Your task to perform on an android device: uninstall "Indeed Job Search" Image 0: 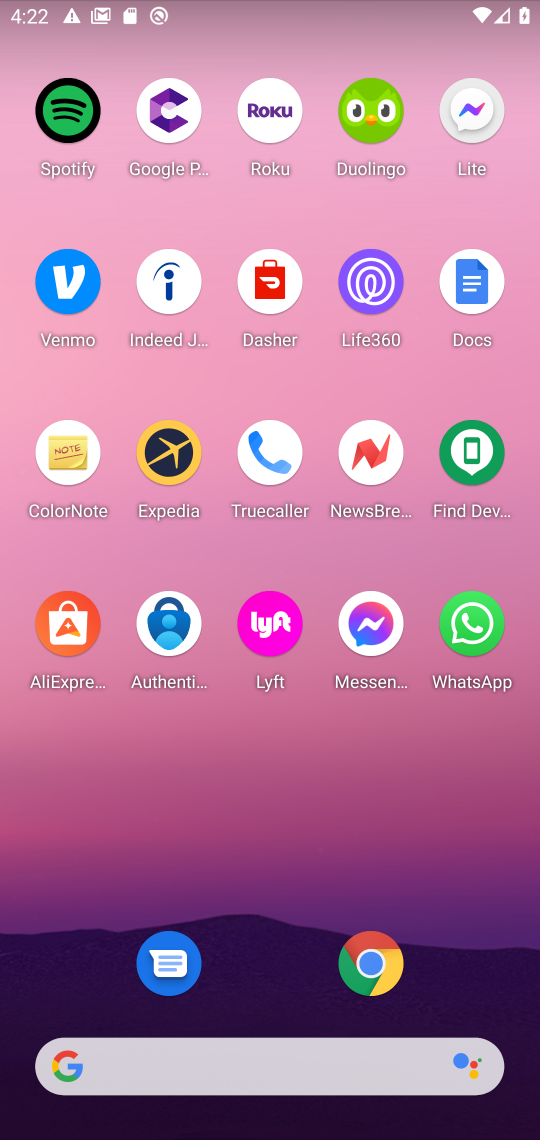
Step 0: press home button
Your task to perform on an android device: uninstall "Indeed Job Search" Image 1: 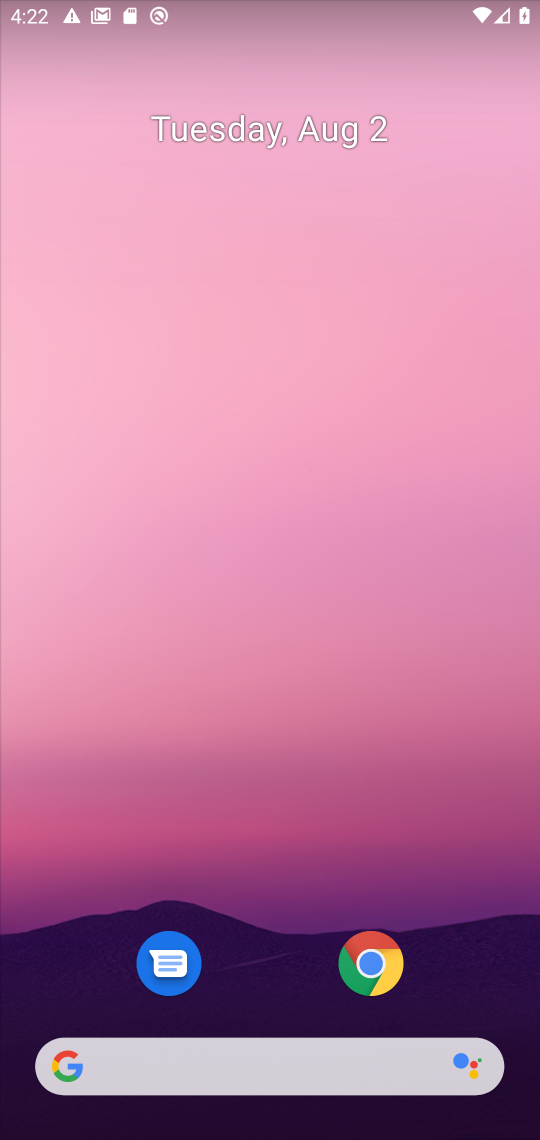
Step 1: drag from (243, 922) to (243, 331)
Your task to perform on an android device: uninstall "Indeed Job Search" Image 2: 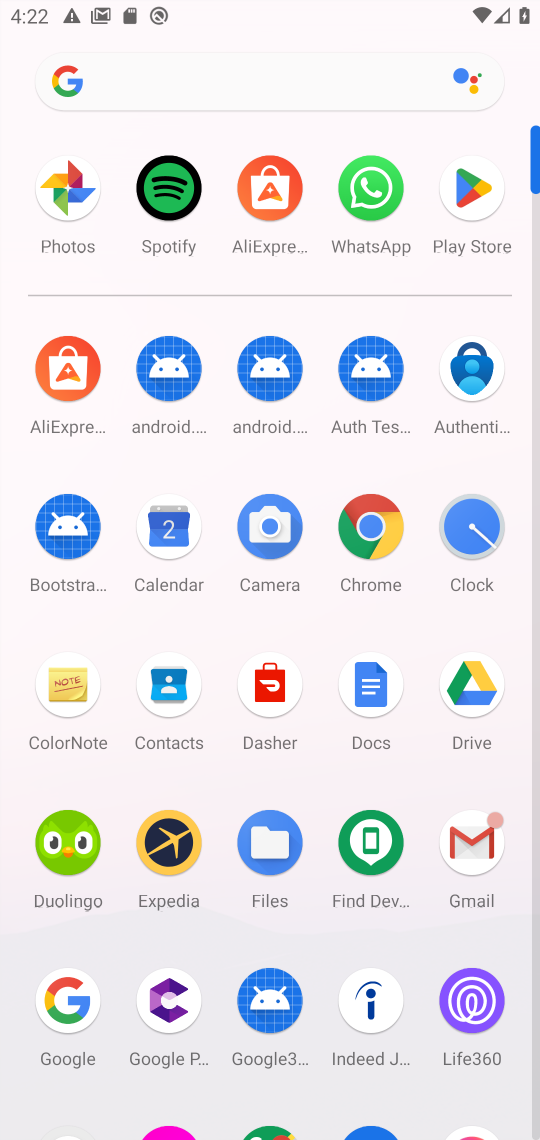
Step 2: click (378, 1001)
Your task to perform on an android device: uninstall "Indeed Job Search" Image 3: 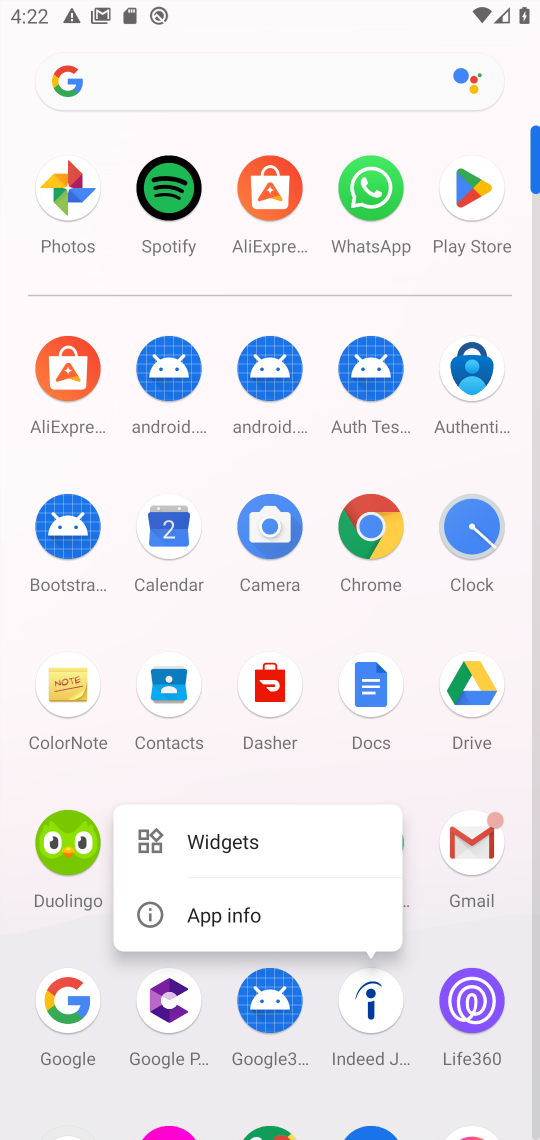
Step 3: click (383, 997)
Your task to perform on an android device: uninstall "Indeed Job Search" Image 4: 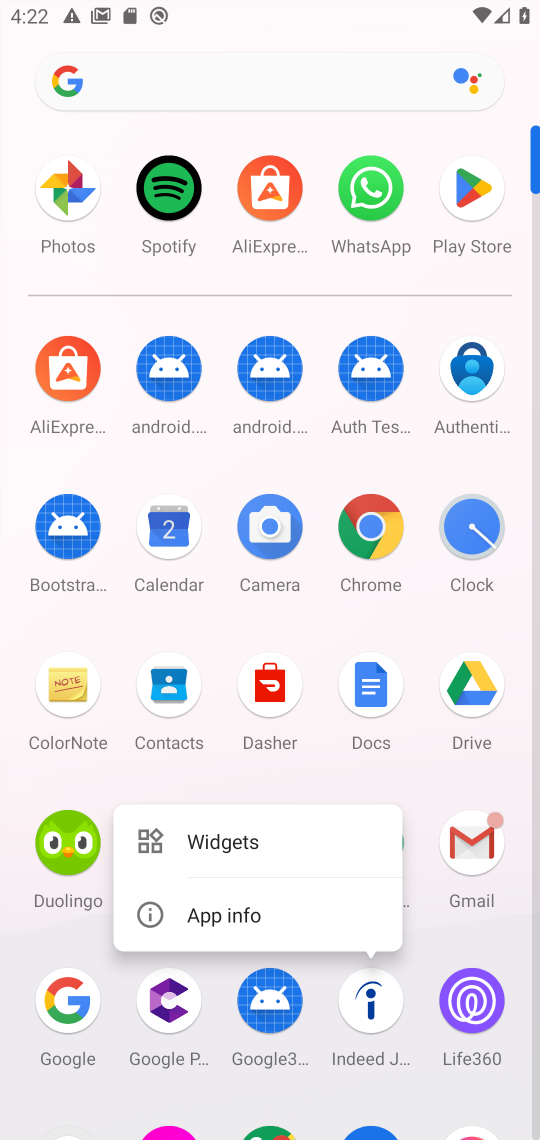
Step 4: click (376, 1001)
Your task to perform on an android device: uninstall "Indeed Job Search" Image 5: 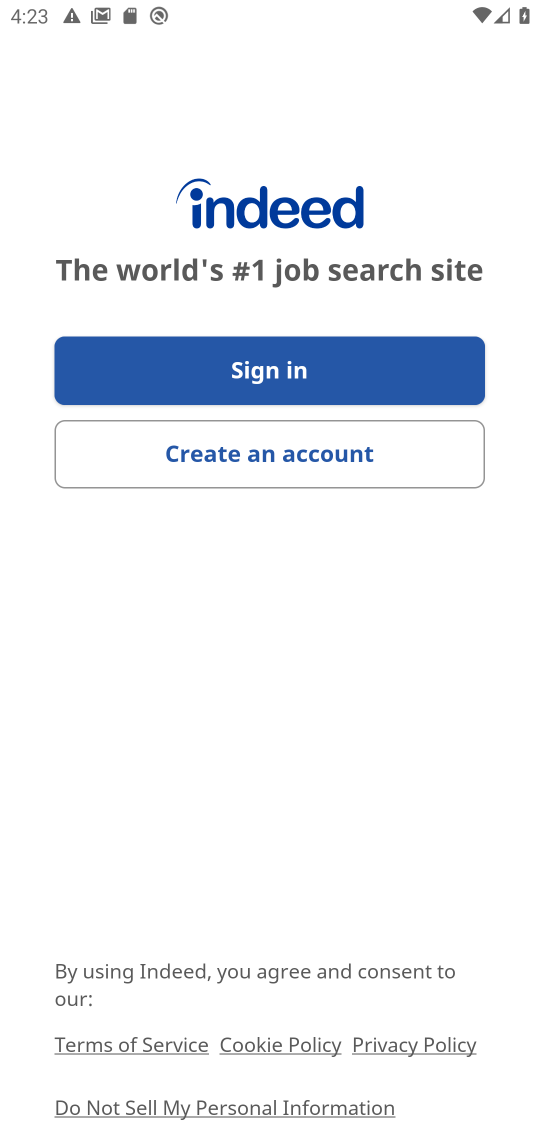
Step 5: task complete